Your task to perform on an android device: Do I have any events tomorrow? Image 0: 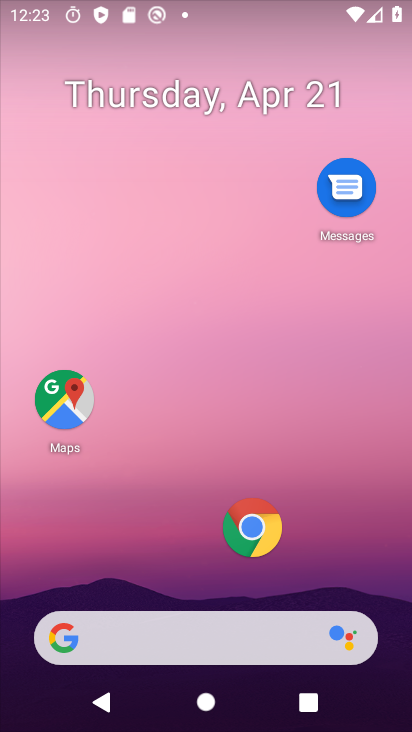
Step 0: drag from (123, 549) to (127, 134)
Your task to perform on an android device: Do I have any events tomorrow? Image 1: 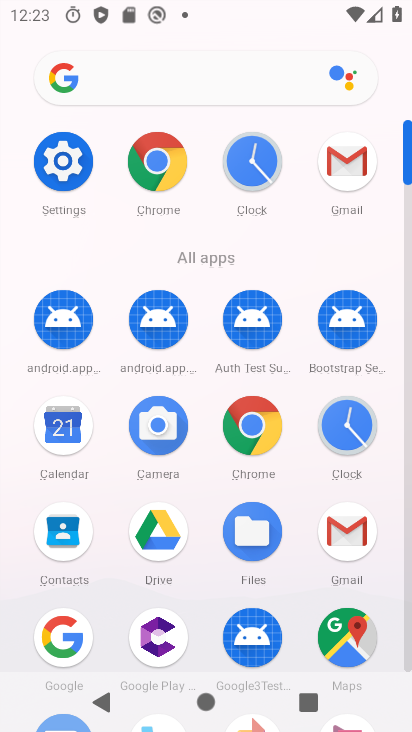
Step 1: click (59, 416)
Your task to perform on an android device: Do I have any events tomorrow? Image 2: 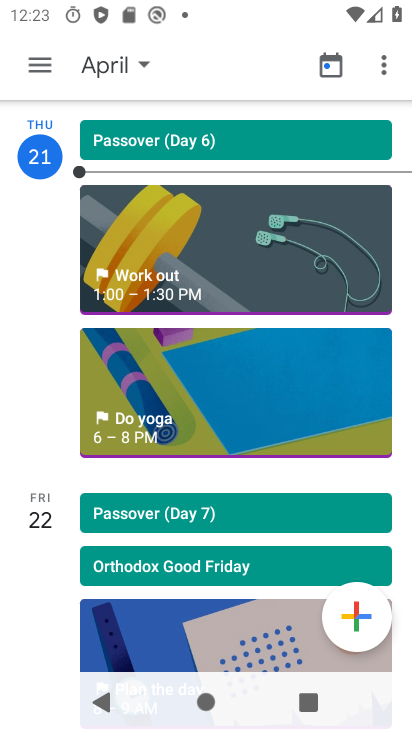
Step 2: click (76, 80)
Your task to perform on an android device: Do I have any events tomorrow? Image 3: 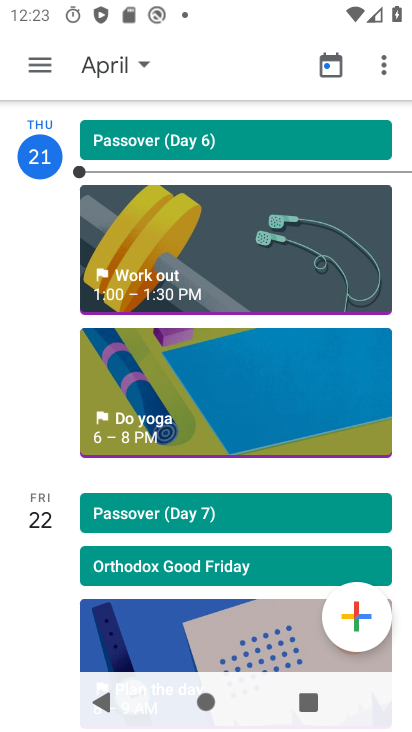
Step 3: click (96, 67)
Your task to perform on an android device: Do I have any events tomorrow? Image 4: 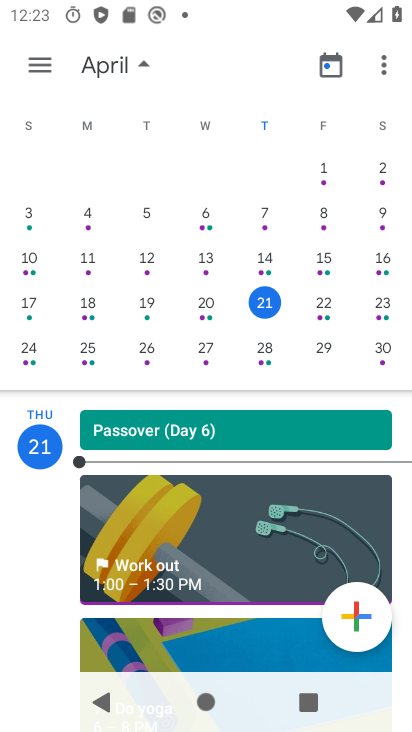
Step 4: click (315, 318)
Your task to perform on an android device: Do I have any events tomorrow? Image 5: 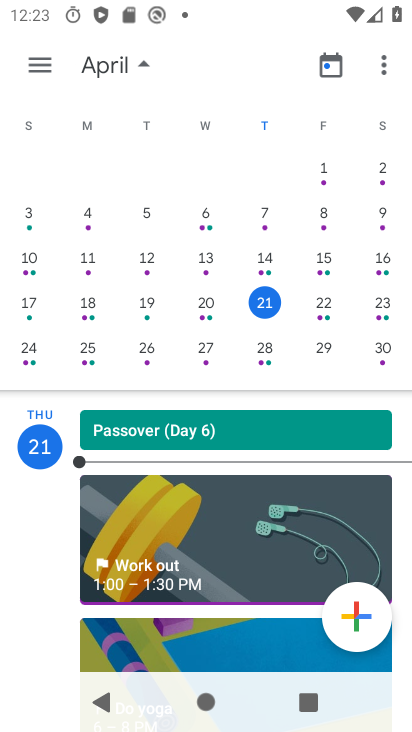
Step 5: click (315, 309)
Your task to perform on an android device: Do I have any events tomorrow? Image 6: 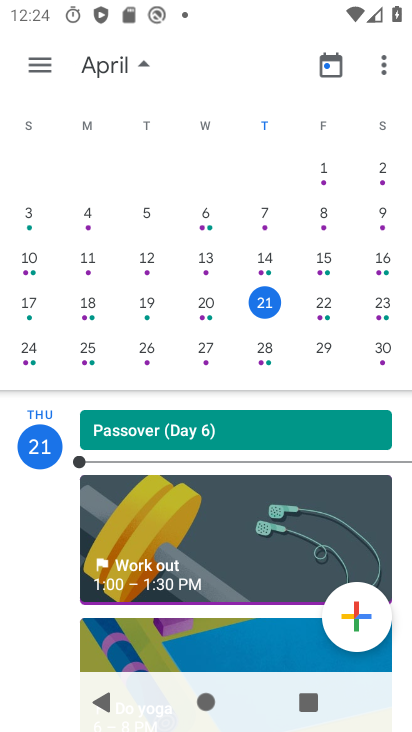
Step 6: click (316, 307)
Your task to perform on an android device: Do I have any events tomorrow? Image 7: 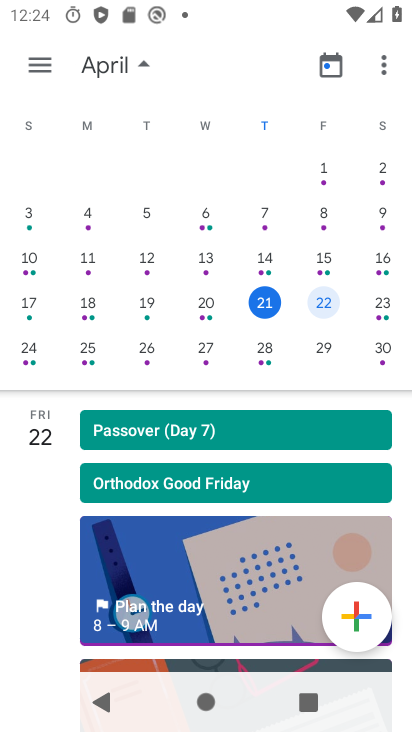
Step 7: task complete